Your task to perform on an android device: Empty the shopping cart on costco. Image 0: 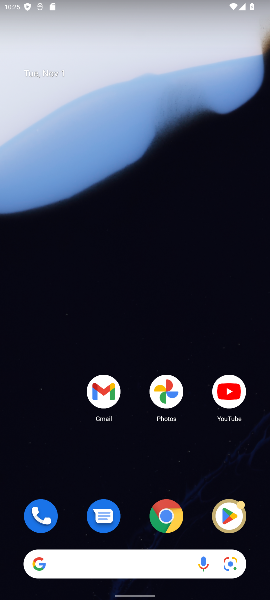
Step 0: task complete